Your task to perform on an android device: turn on notifications settings in the gmail app Image 0: 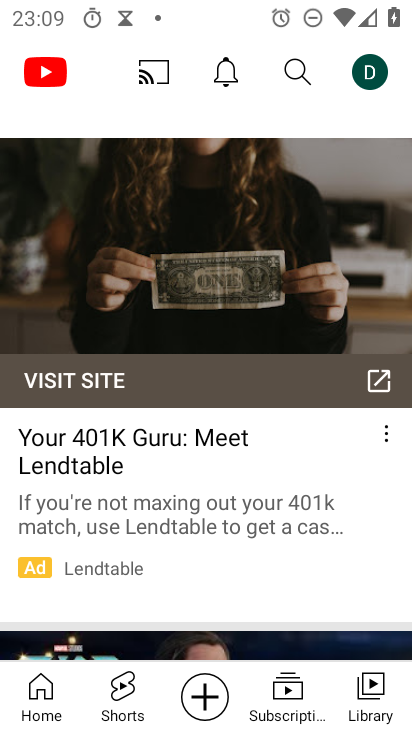
Step 0: press home button
Your task to perform on an android device: turn on notifications settings in the gmail app Image 1: 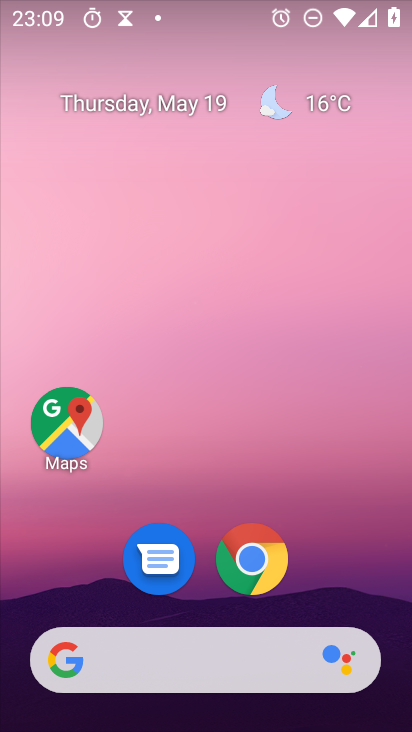
Step 1: drag from (237, 723) to (232, 196)
Your task to perform on an android device: turn on notifications settings in the gmail app Image 2: 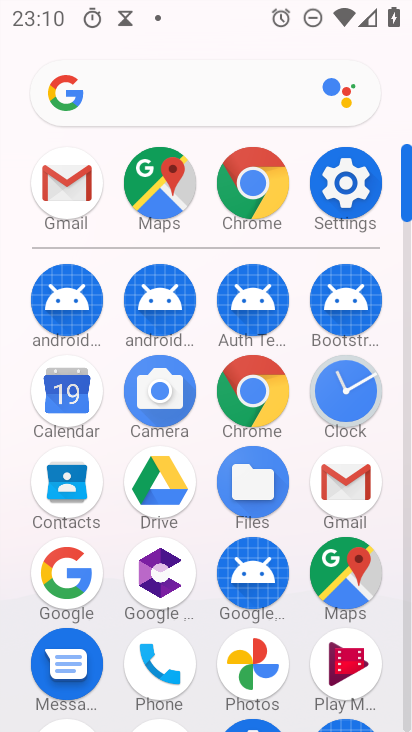
Step 2: click (341, 484)
Your task to perform on an android device: turn on notifications settings in the gmail app Image 3: 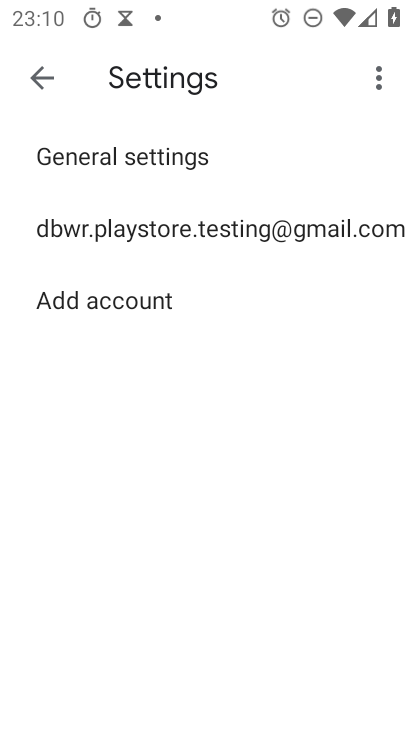
Step 3: click (192, 224)
Your task to perform on an android device: turn on notifications settings in the gmail app Image 4: 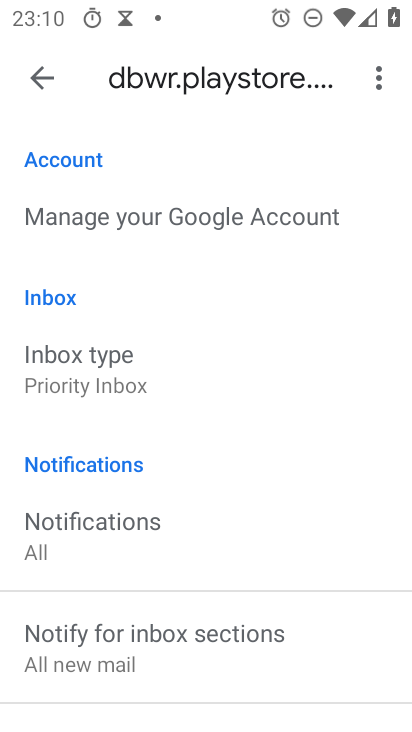
Step 4: task complete